Your task to perform on an android device: When is my next meeting? Image 0: 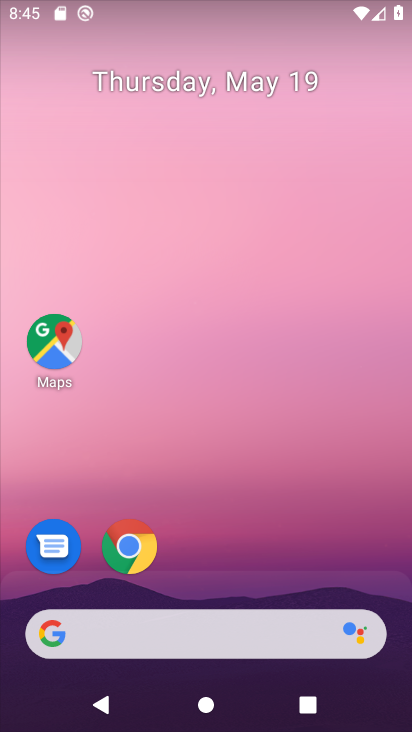
Step 0: click (232, 263)
Your task to perform on an android device: When is my next meeting? Image 1: 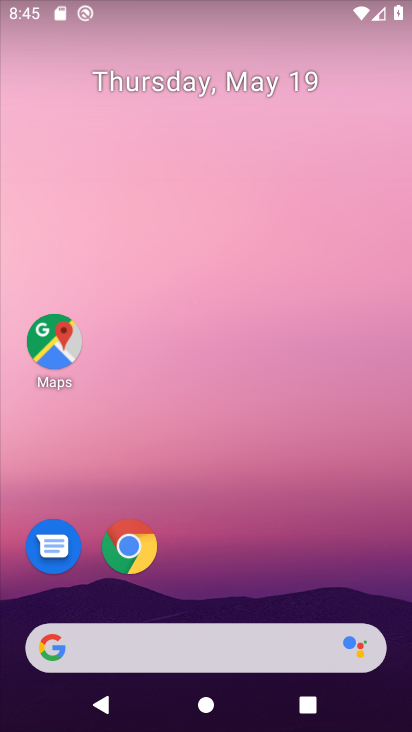
Step 1: drag from (206, 333) to (121, 68)
Your task to perform on an android device: When is my next meeting? Image 2: 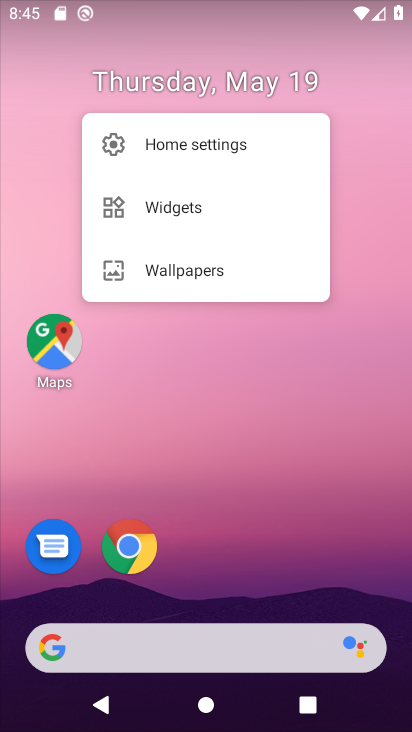
Step 2: drag from (218, 178) to (116, 31)
Your task to perform on an android device: When is my next meeting? Image 3: 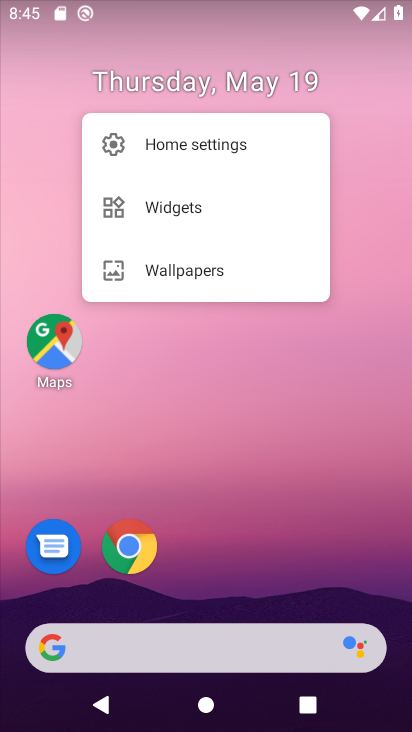
Step 3: drag from (225, 495) to (101, 37)
Your task to perform on an android device: When is my next meeting? Image 4: 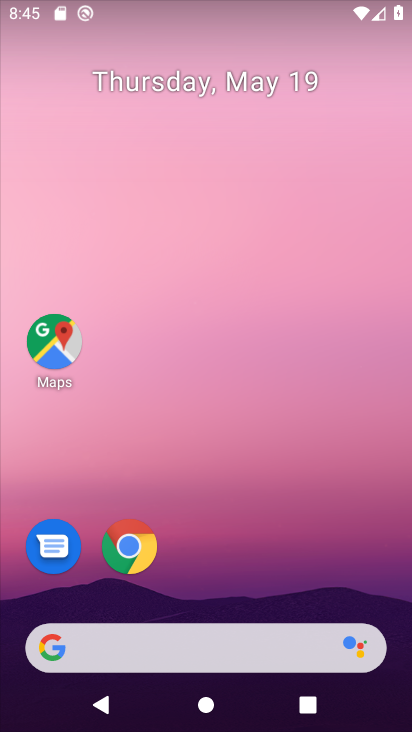
Step 4: drag from (186, 537) to (168, 91)
Your task to perform on an android device: When is my next meeting? Image 5: 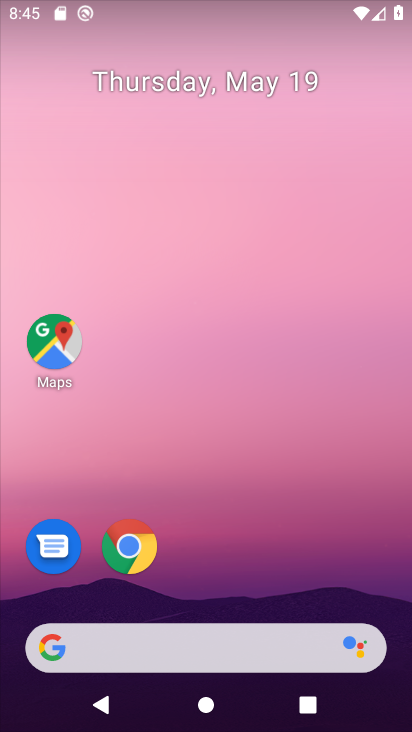
Step 5: drag from (226, 527) to (146, 25)
Your task to perform on an android device: When is my next meeting? Image 6: 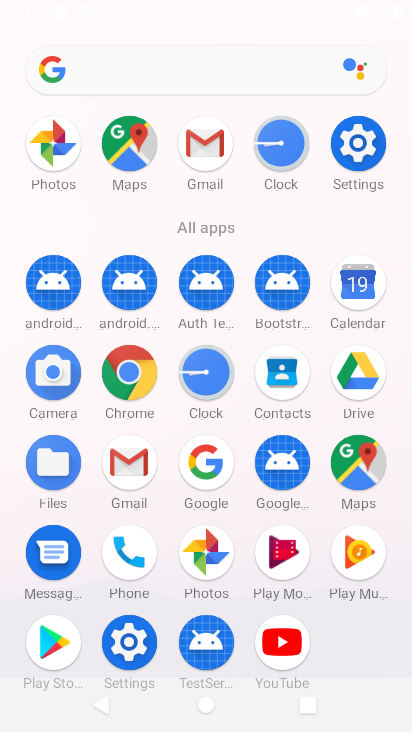
Step 6: drag from (185, 477) to (198, 36)
Your task to perform on an android device: When is my next meeting? Image 7: 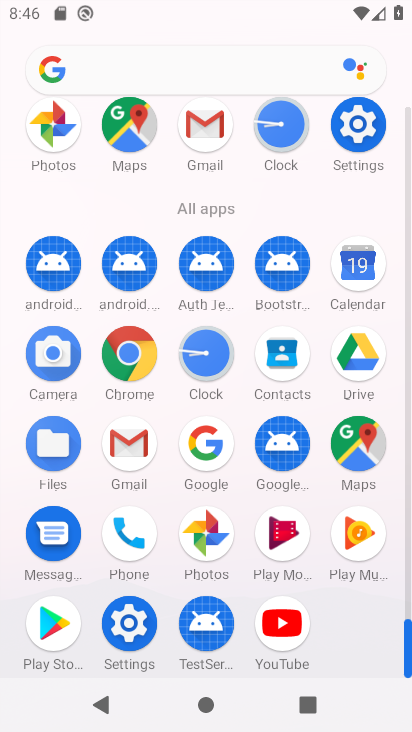
Step 7: click (359, 266)
Your task to perform on an android device: When is my next meeting? Image 8: 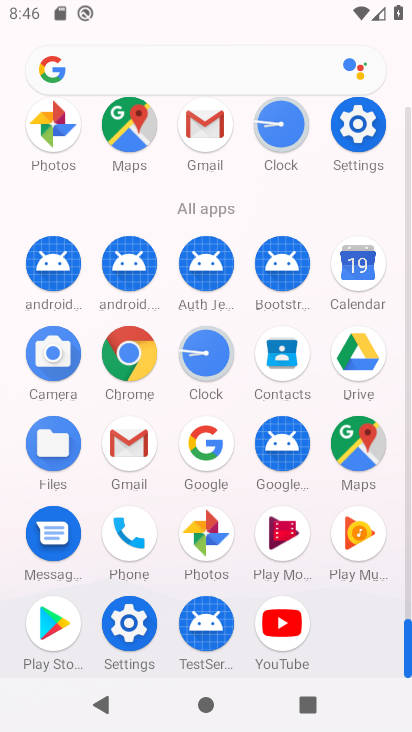
Step 8: click (359, 266)
Your task to perform on an android device: When is my next meeting? Image 9: 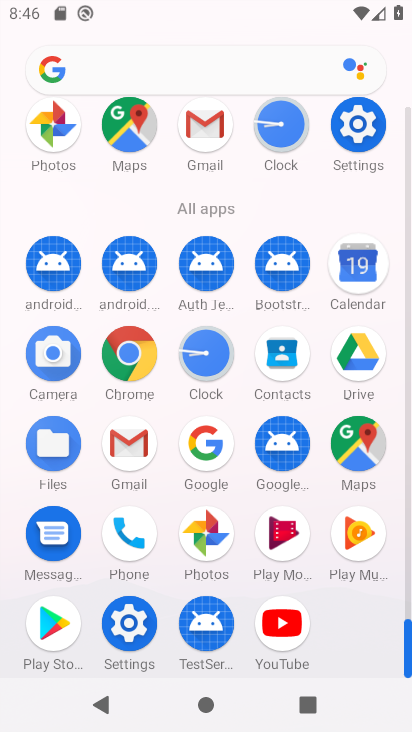
Step 9: click (360, 267)
Your task to perform on an android device: When is my next meeting? Image 10: 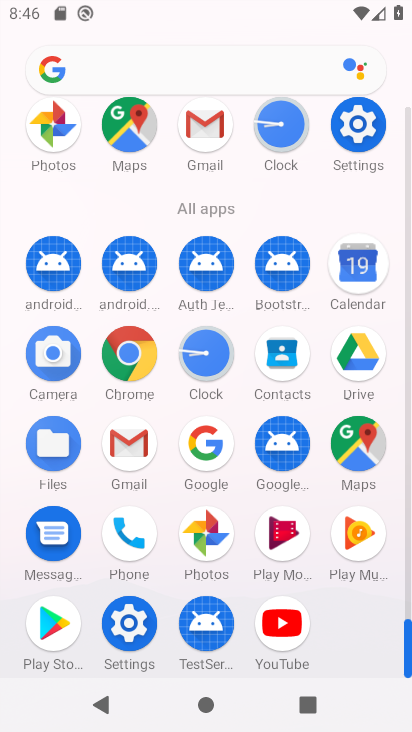
Step 10: click (360, 267)
Your task to perform on an android device: When is my next meeting? Image 11: 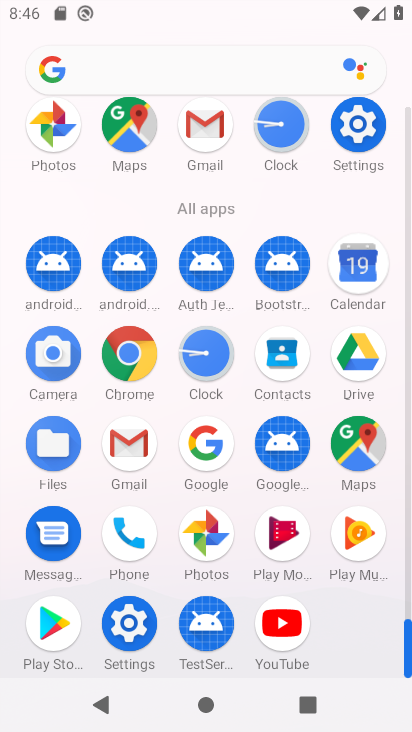
Step 11: click (355, 261)
Your task to perform on an android device: When is my next meeting? Image 12: 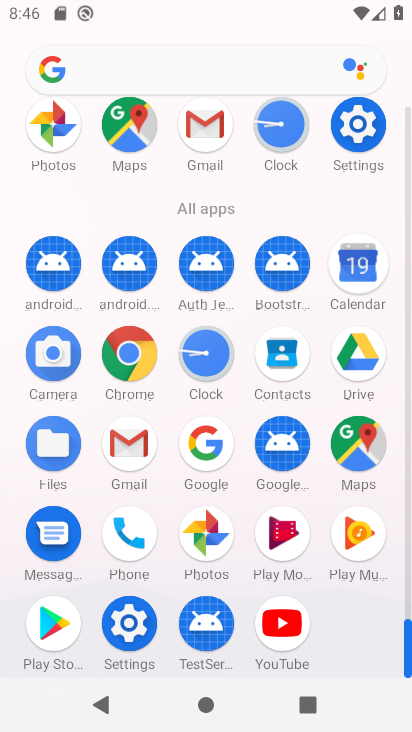
Step 12: click (355, 261)
Your task to perform on an android device: When is my next meeting? Image 13: 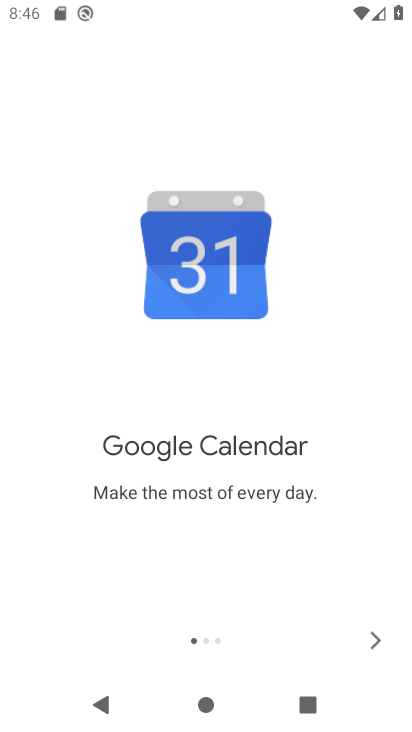
Step 13: click (374, 637)
Your task to perform on an android device: When is my next meeting? Image 14: 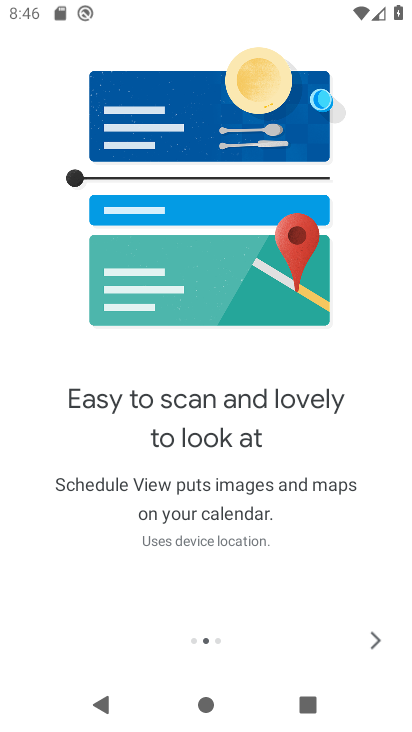
Step 14: click (371, 589)
Your task to perform on an android device: When is my next meeting? Image 15: 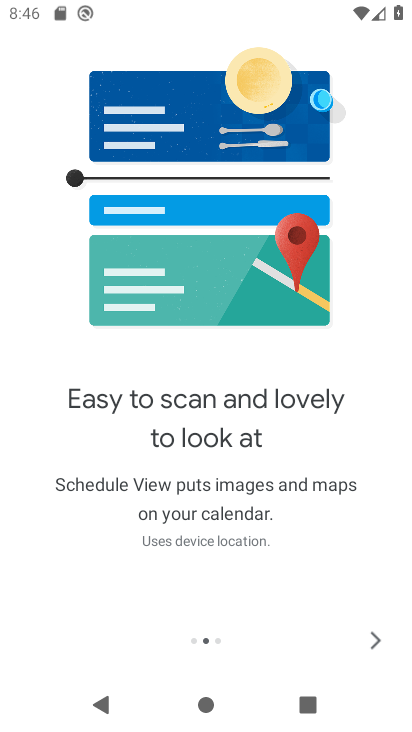
Step 15: click (366, 626)
Your task to perform on an android device: When is my next meeting? Image 16: 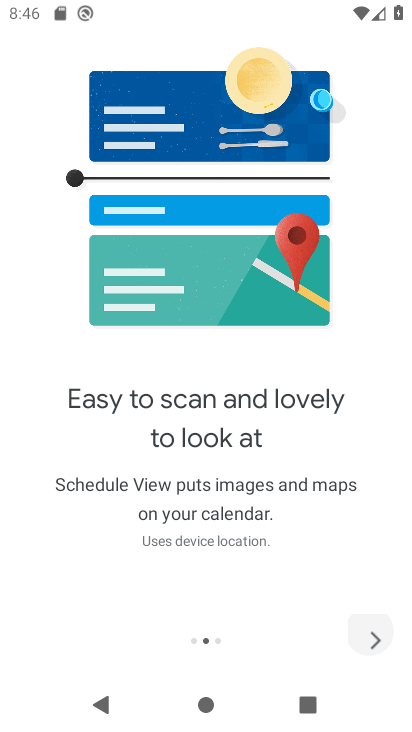
Step 16: click (371, 623)
Your task to perform on an android device: When is my next meeting? Image 17: 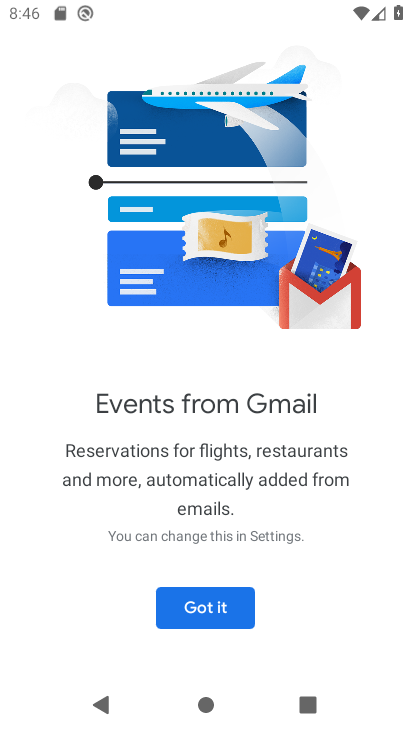
Step 17: click (377, 632)
Your task to perform on an android device: When is my next meeting? Image 18: 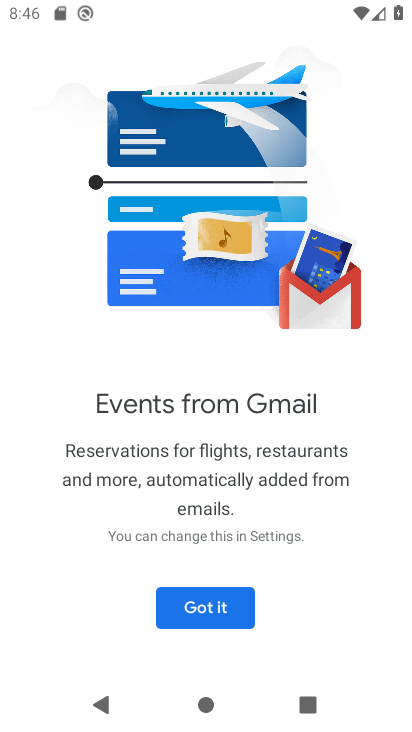
Step 18: click (206, 607)
Your task to perform on an android device: When is my next meeting? Image 19: 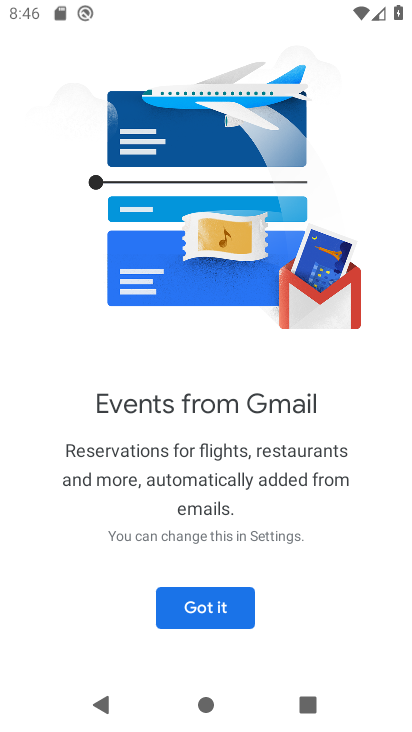
Step 19: click (207, 607)
Your task to perform on an android device: When is my next meeting? Image 20: 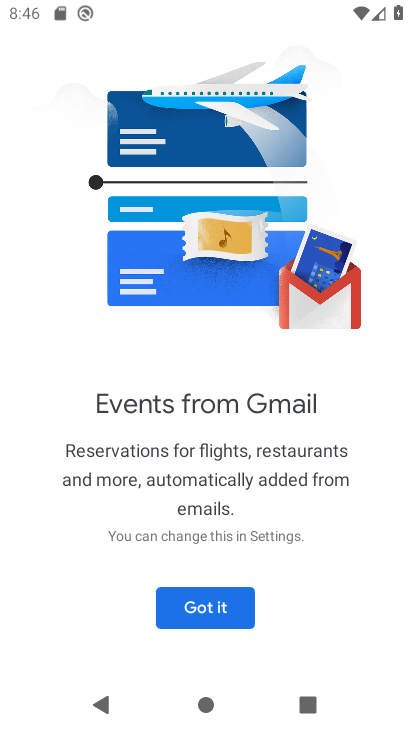
Step 20: click (211, 605)
Your task to perform on an android device: When is my next meeting? Image 21: 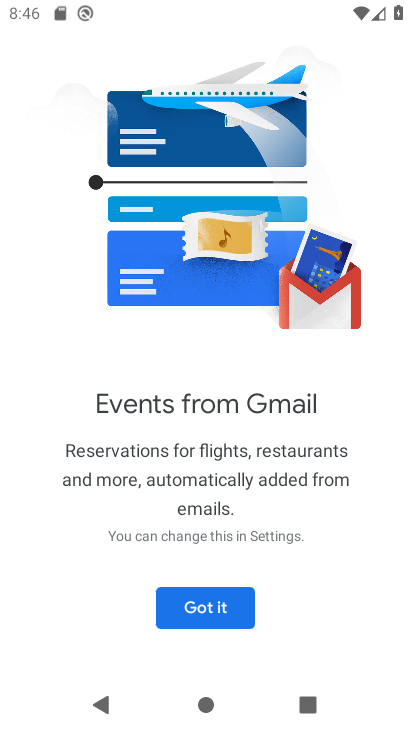
Step 21: click (212, 605)
Your task to perform on an android device: When is my next meeting? Image 22: 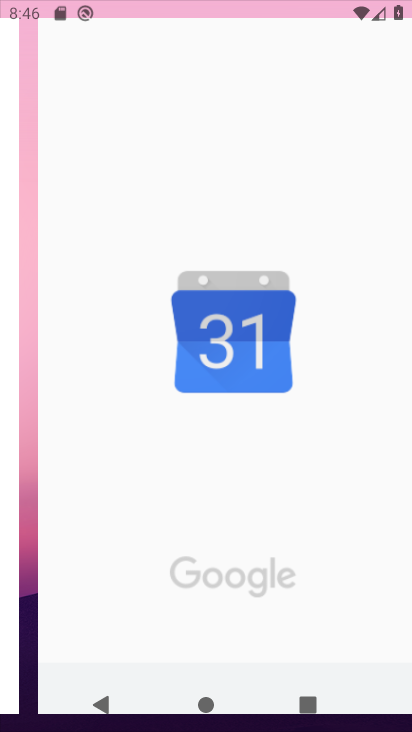
Step 22: click (212, 605)
Your task to perform on an android device: When is my next meeting? Image 23: 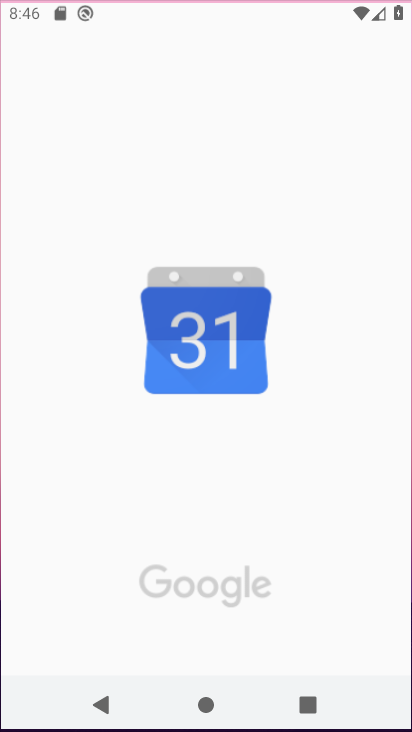
Step 23: click (213, 604)
Your task to perform on an android device: When is my next meeting? Image 24: 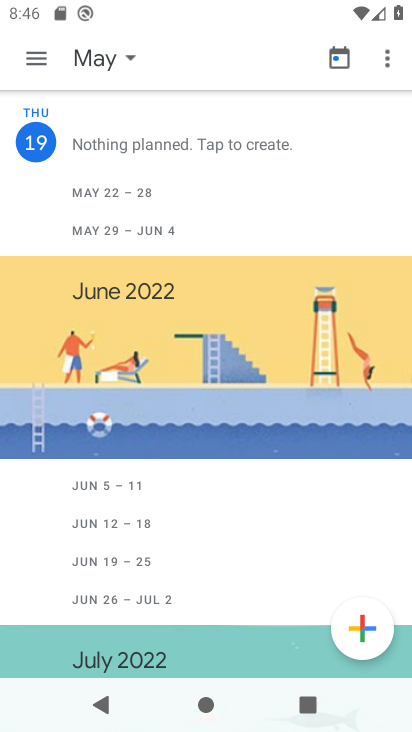
Step 24: click (128, 57)
Your task to perform on an android device: When is my next meeting? Image 25: 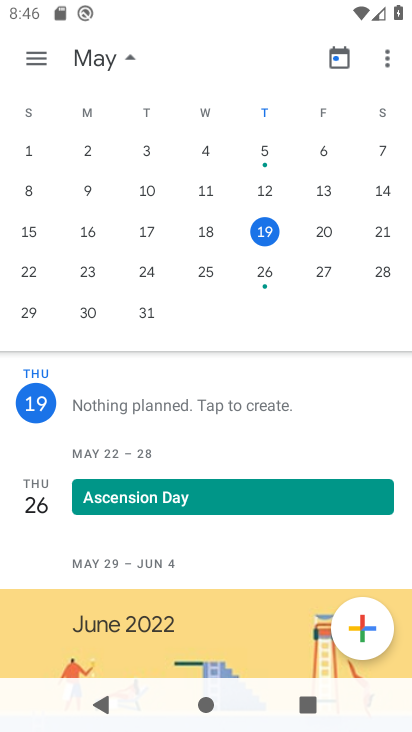
Step 25: drag from (180, 531) to (148, 24)
Your task to perform on an android device: When is my next meeting? Image 26: 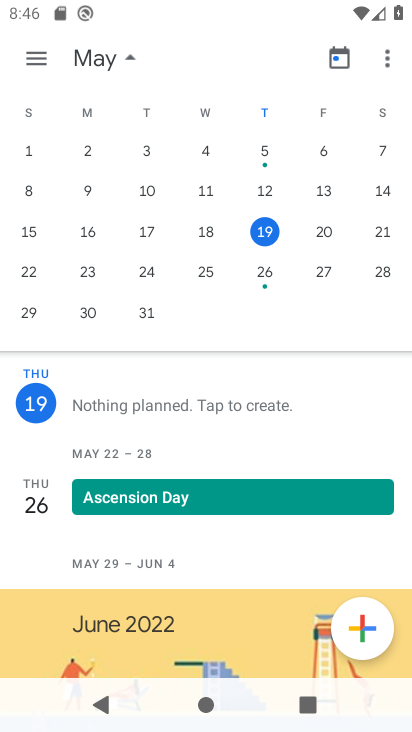
Step 26: drag from (150, 422) to (133, 16)
Your task to perform on an android device: When is my next meeting? Image 27: 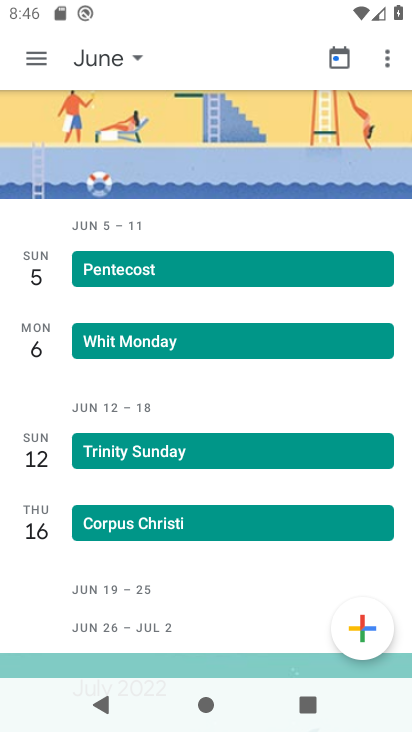
Step 27: drag from (159, 411) to (159, 40)
Your task to perform on an android device: When is my next meeting? Image 28: 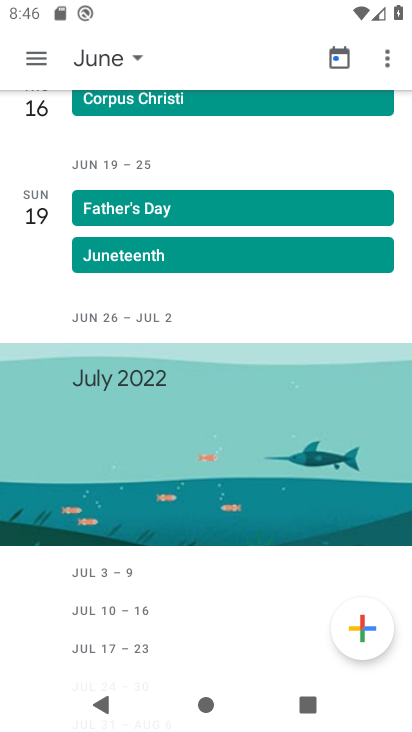
Step 28: drag from (118, 365) to (114, 78)
Your task to perform on an android device: When is my next meeting? Image 29: 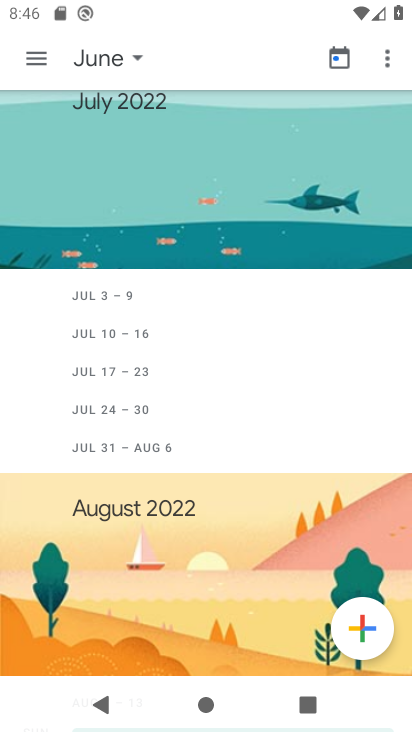
Step 29: drag from (152, 171) to (147, 87)
Your task to perform on an android device: When is my next meeting? Image 30: 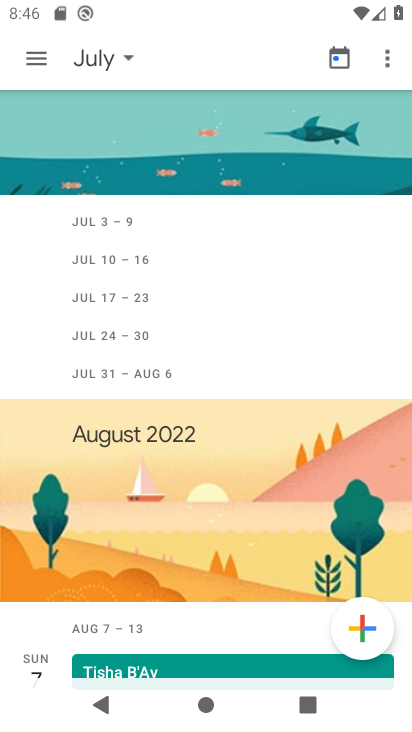
Step 30: drag from (159, 420) to (157, 202)
Your task to perform on an android device: When is my next meeting? Image 31: 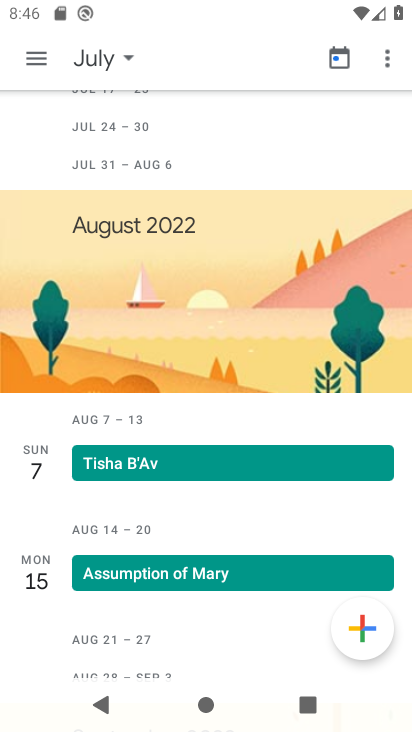
Step 31: drag from (160, 453) to (119, 169)
Your task to perform on an android device: When is my next meeting? Image 32: 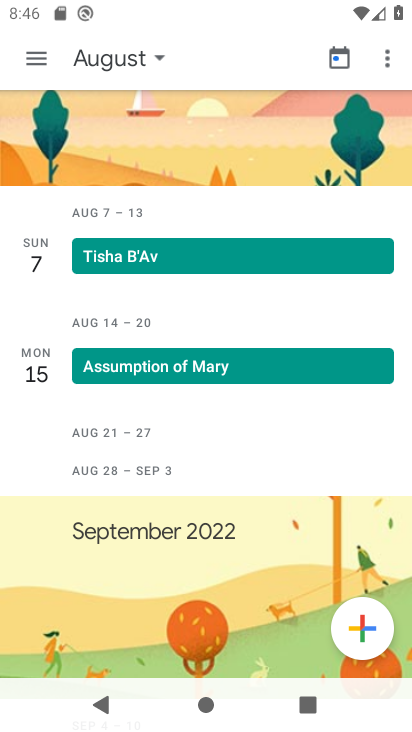
Step 32: drag from (143, 166) to (181, 628)
Your task to perform on an android device: When is my next meeting? Image 33: 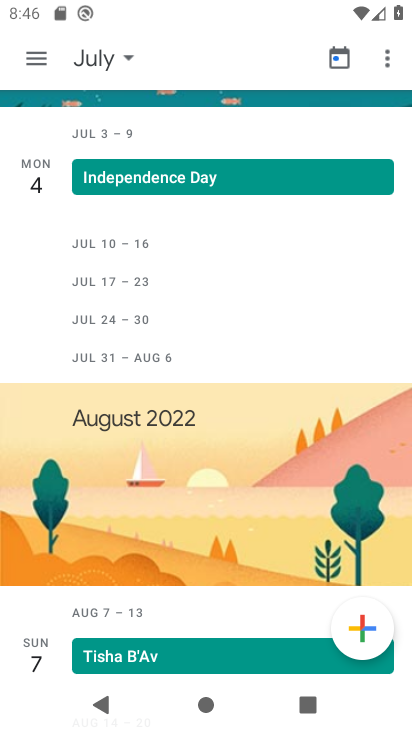
Step 33: drag from (146, 265) to (159, 630)
Your task to perform on an android device: When is my next meeting? Image 34: 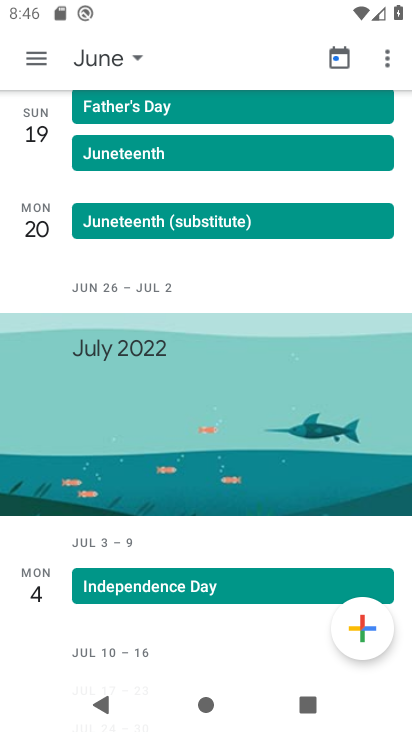
Step 34: drag from (157, 245) to (157, 658)
Your task to perform on an android device: When is my next meeting? Image 35: 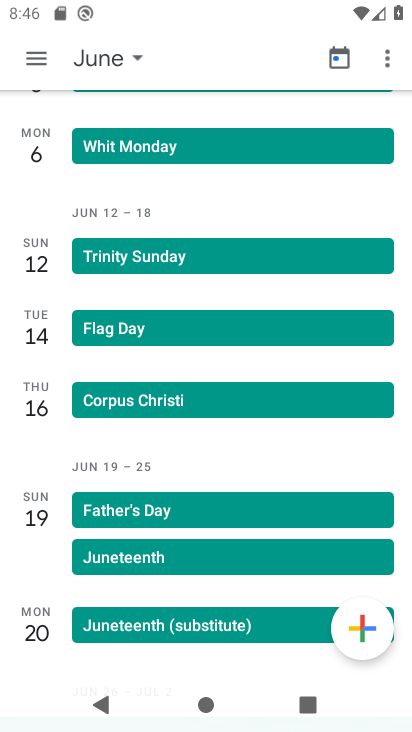
Step 35: drag from (145, 295) to (193, 605)
Your task to perform on an android device: When is my next meeting? Image 36: 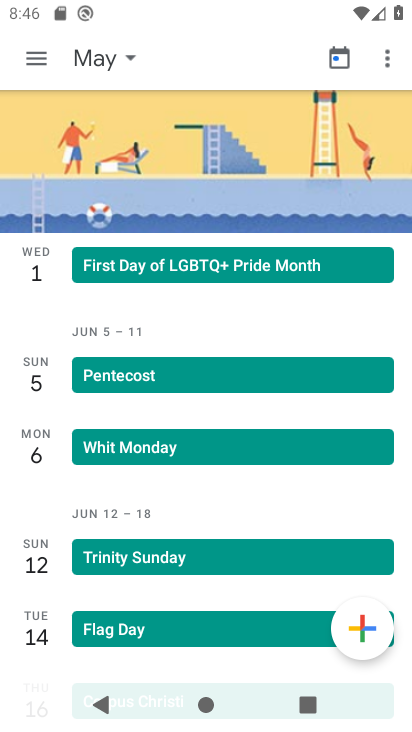
Step 36: drag from (168, 229) to (200, 638)
Your task to perform on an android device: When is my next meeting? Image 37: 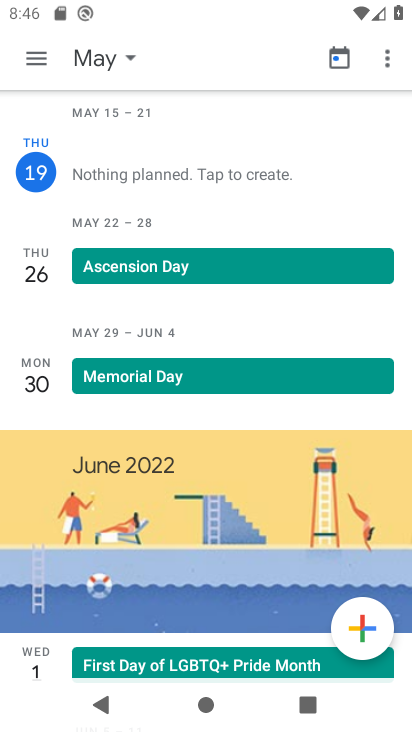
Step 37: drag from (110, 276) to (167, 600)
Your task to perform on an android device: When is my next meeting? Image 38: 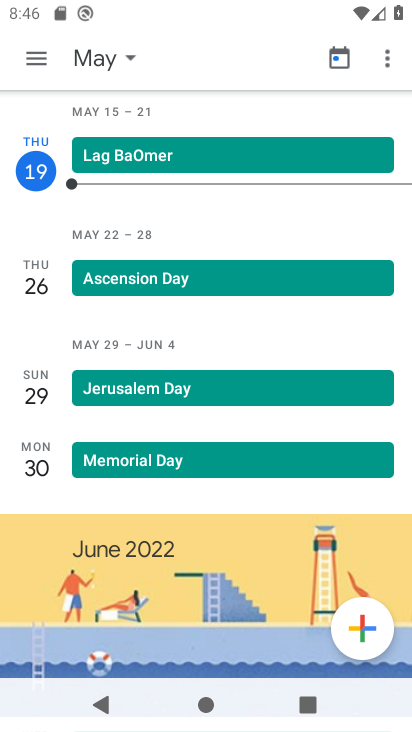
Step 38: drag from (126, 378) to (138, 466)
Your task to perform on an android device: When is my next meeting? Image 39: 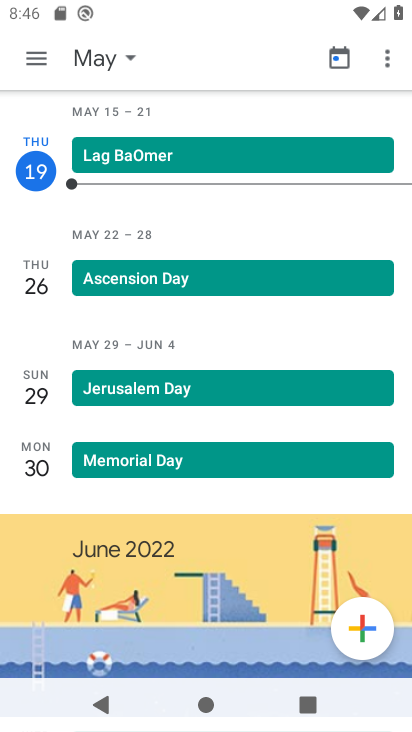
Step 39: drag from (122, 246) to (209, 650)
Your task to perform on an android device: When is my next meeting? Image 40: 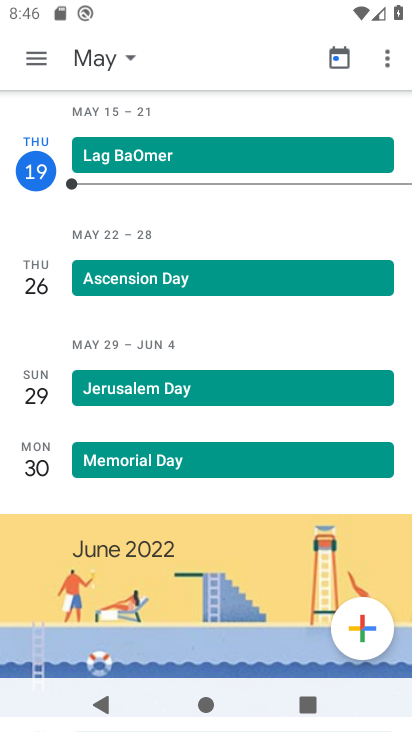
Step 40: drag from (168, 261) to (195, 632)
Your task to perform on an android device: When is my next meeting? Image 41: 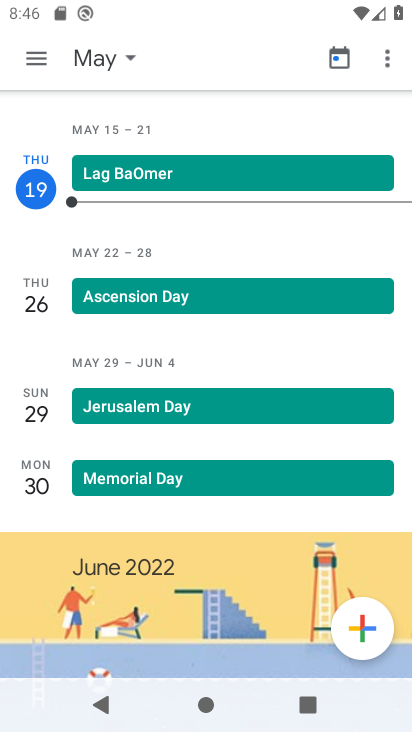
Step 41: click (160, 623)
Your task to perform on an android device: When is my next meeting? Image 42: 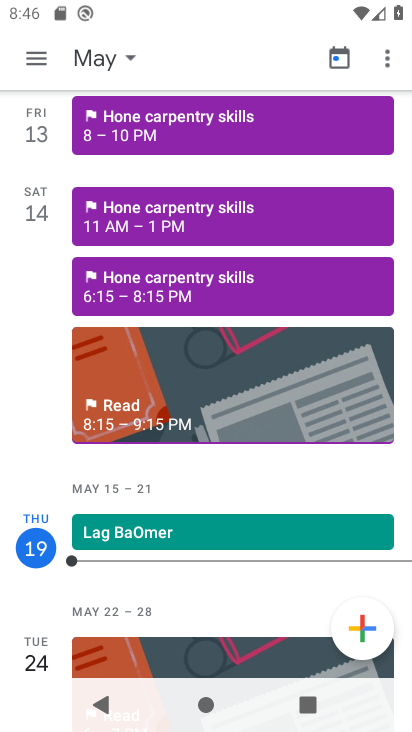
Step 42: click (105, 202)
Your task to perform on an android device: When is my next meeting? Image 43: 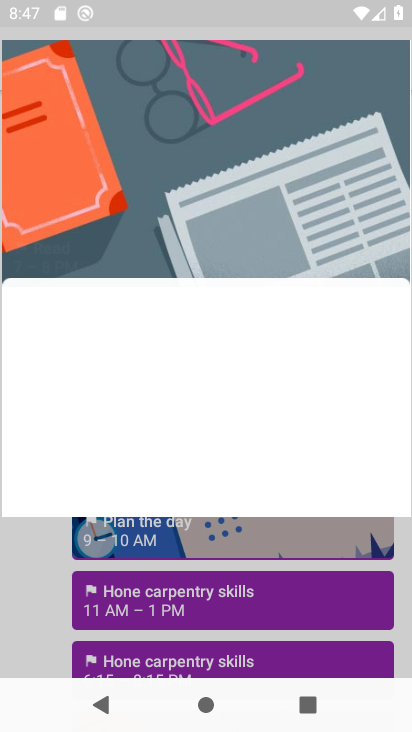
Step 43: click (121, 212)
Your task to perform on an android device: When is my next meeting? Image 44: 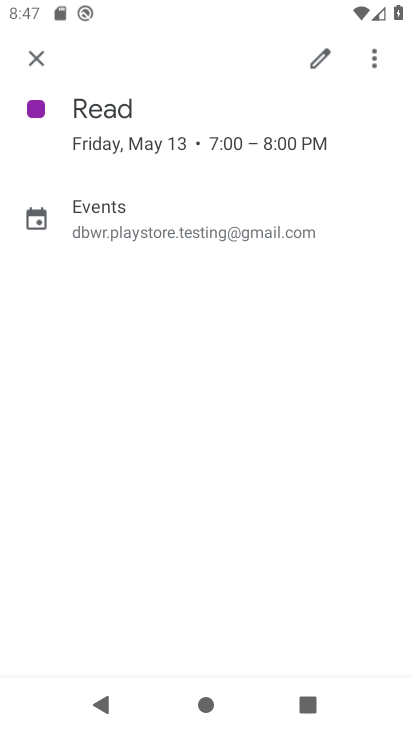
Step 44: click (96, 227)
Your task to perform on an android device: When is my next meeting? Image 45: 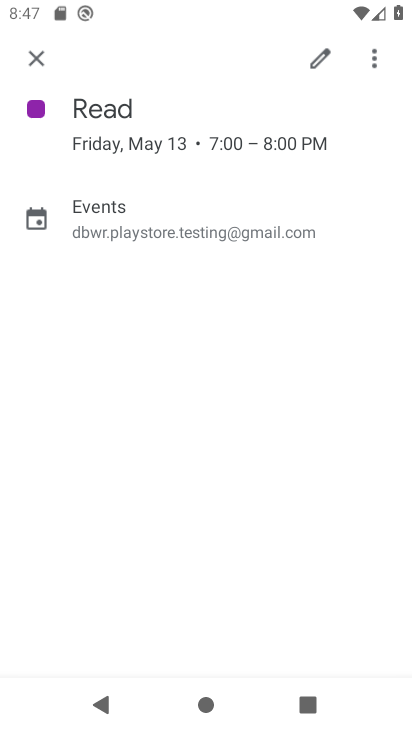
Step 45: click (99, 225)
Your task to perform on an android device: When is my next meeting? Image 46: 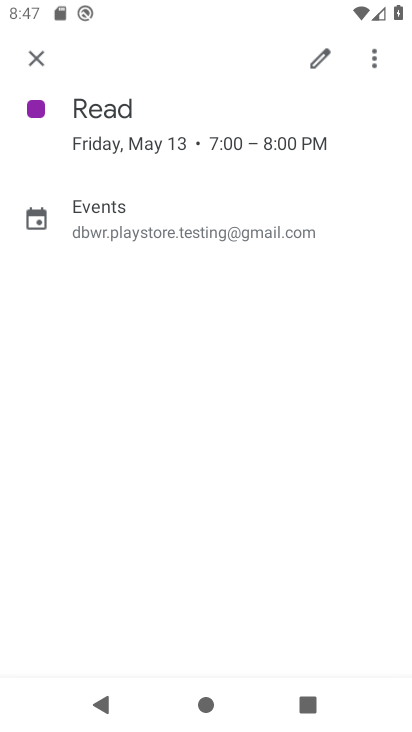
Step 46: click (99, 225)
Your task to perform on an android device: When is my next meeting? Image 47: 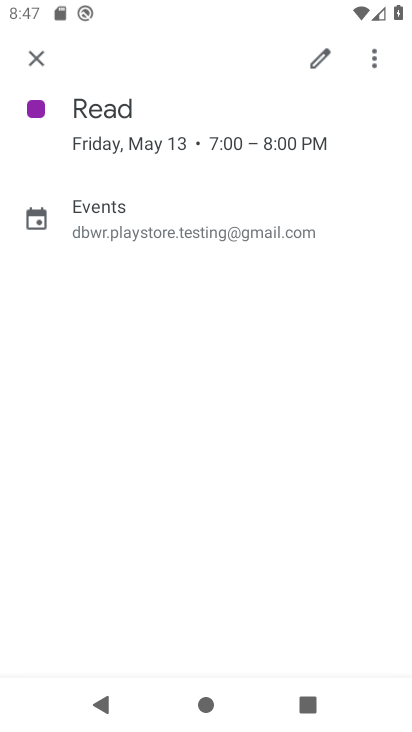
Step 47: click (100, 226)
Your task to perform on an android device: When is my next meeting? Image 48: 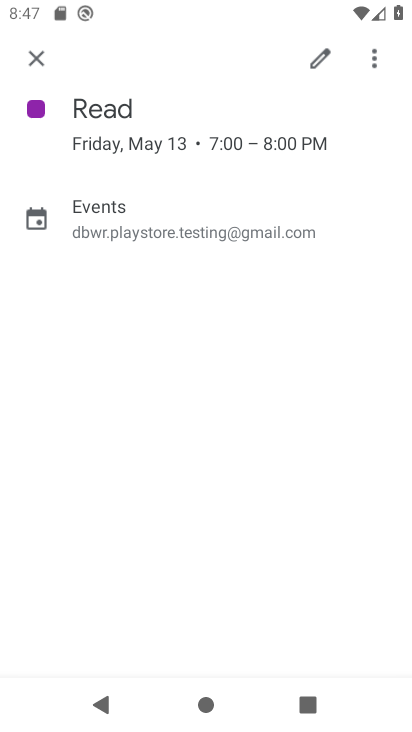
Step 48: task complete